Your task to perform on an android device: see tabs open on other devices in the chrome app Image 0: 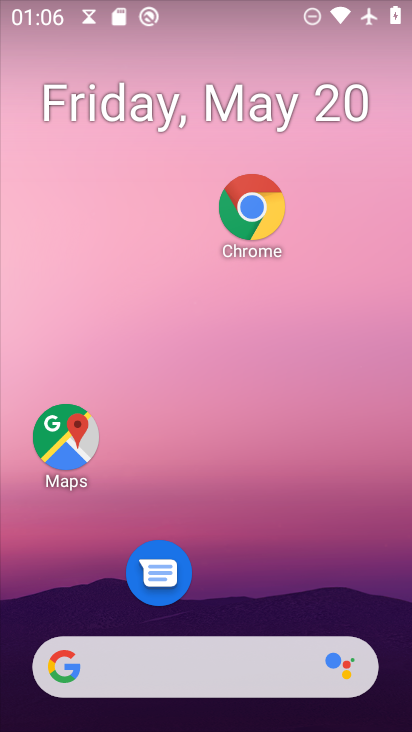
Step 0: click (245, 205)
Your task to perform on an android device: see tabs open on other devices in the chrome app Image 1: 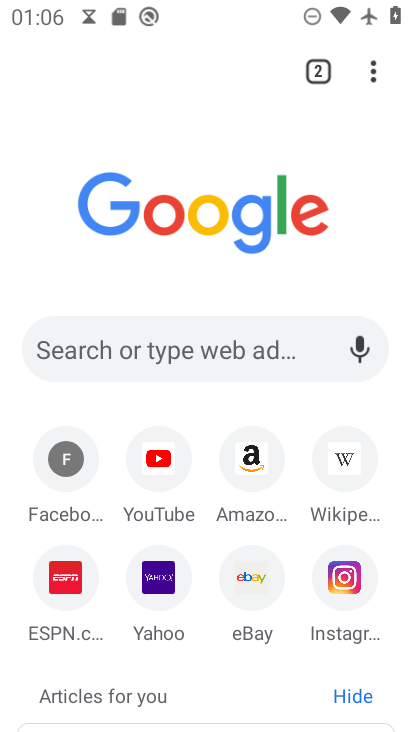
Step 1: click (371, 62)
Your task to perform on an android device: see tabs open on other devices in the chrome app Image 2: 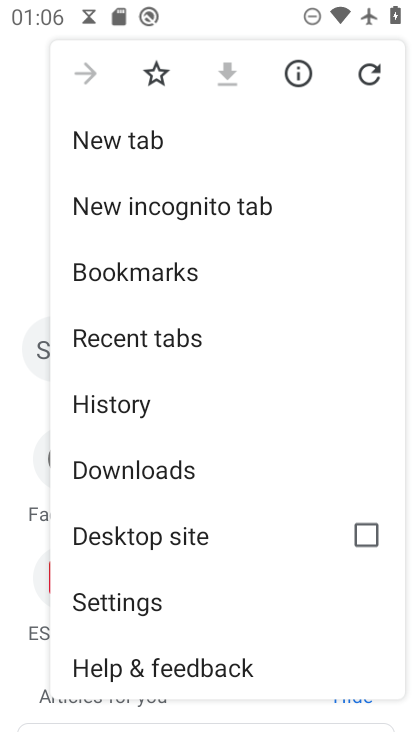
Step 2: click (110, 340)
Your task to perform on an android device: see tabs open on other devices in the chrome app Image 3: 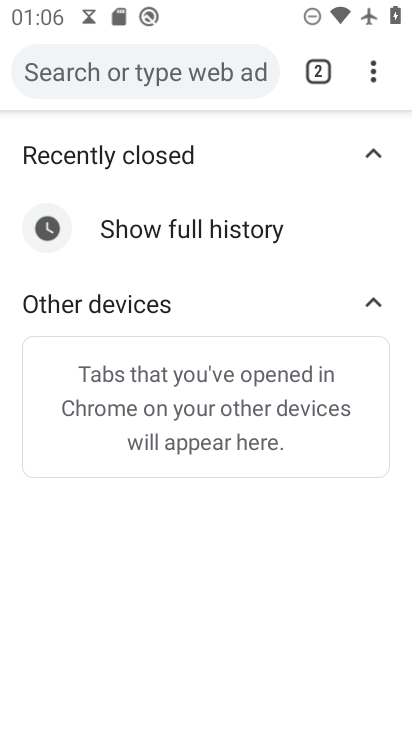
Step 3: task complete